Your task to perform on an android device: turn pop-ups off in chrome Image 0: 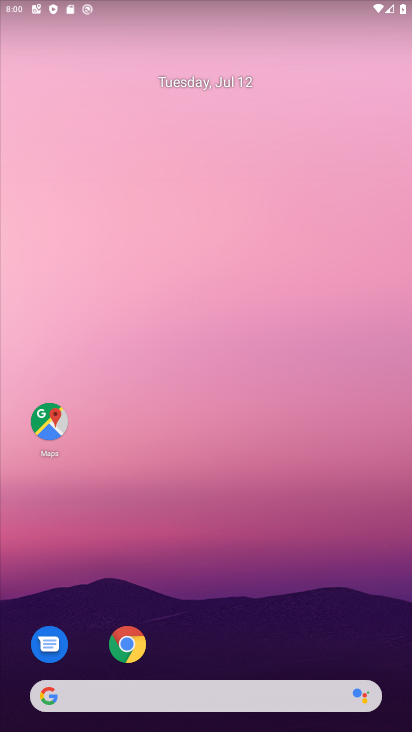
Step 0: drag from (188, 659) to (251, 150)
Your task to perform on an android device: turn pop-ups off in chrome Image 1: 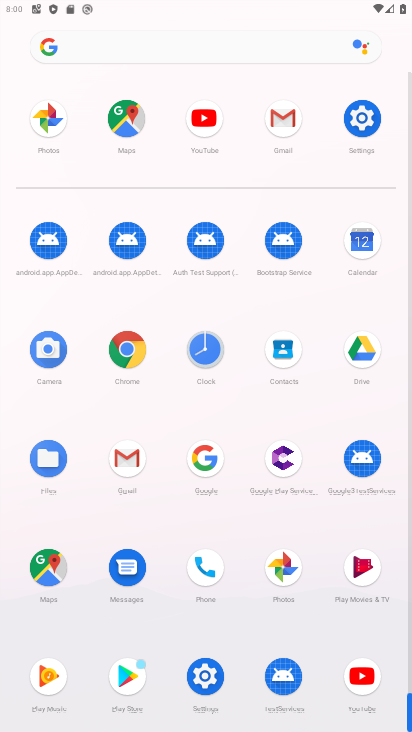
Step 1: click (128, 345)
Your task to perform on an android device: turn pop-ups off in chrome Image 2: 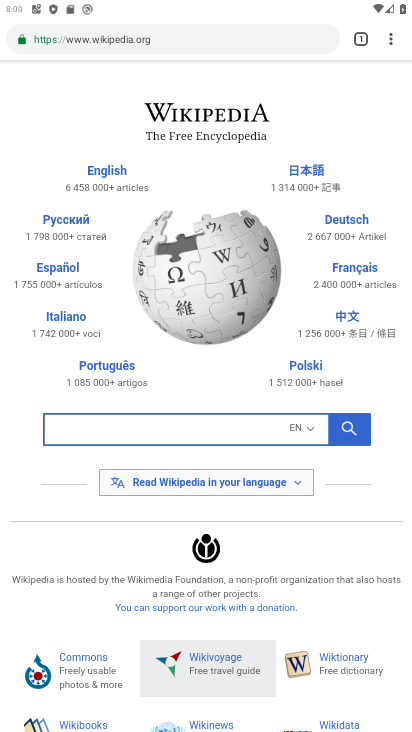
Step 2: drag from (233, 159) to (281, 713)
Your task to perform on an android device: turn pop-ups off in chrome Image 3: 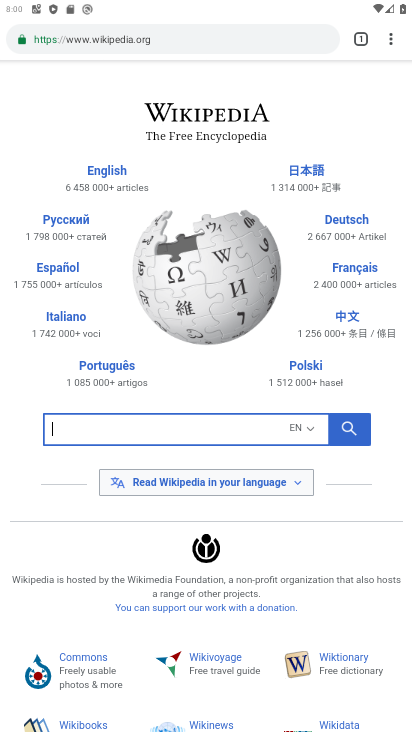
Step 3: drag from (285, 551) to (296, 189)
Your task to perform on an android device: turn pop-ups off in chrome Image 4: 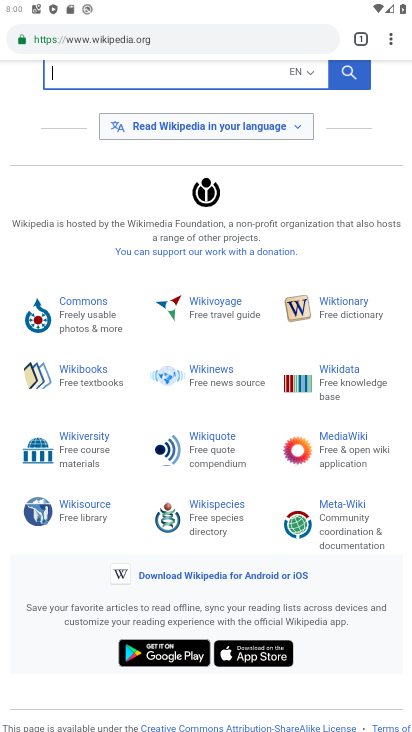
Step 4: drag from (281, 261) to (319, 726)
Your task to perform on an android device: turn pop-ups off in chrome Image 5: 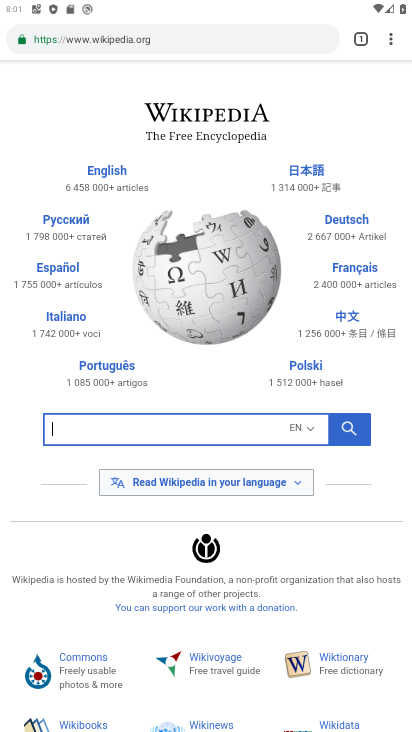
Step 5: drag from (273, 115) to (320, 517)
Your task to perform on an android device: turn pop-ups off in chrome Image 6: 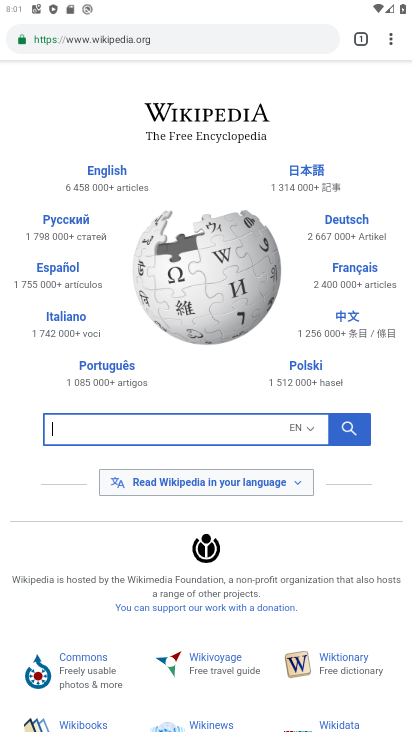
Step 6: click (386, 39)
Your task to perform on an android device: turn pop-ups off in chrome Image 7: 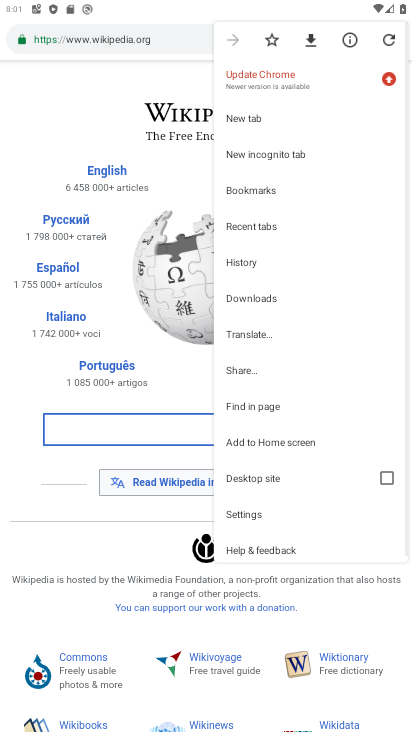
Step 7: drag from (282, 524) to (324, 130)
Your task to perform on an android device: turn pop-ups off in chrome Image 8: 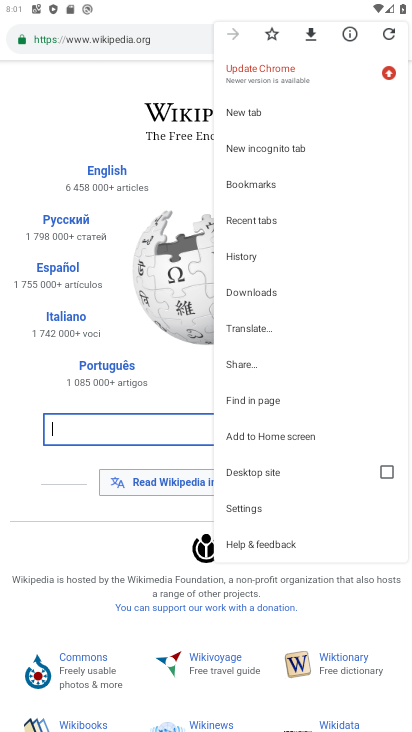
Step 8: click (259, 512)
Your task to perform on an android device: turn pop-ups off in chrome Image 9: 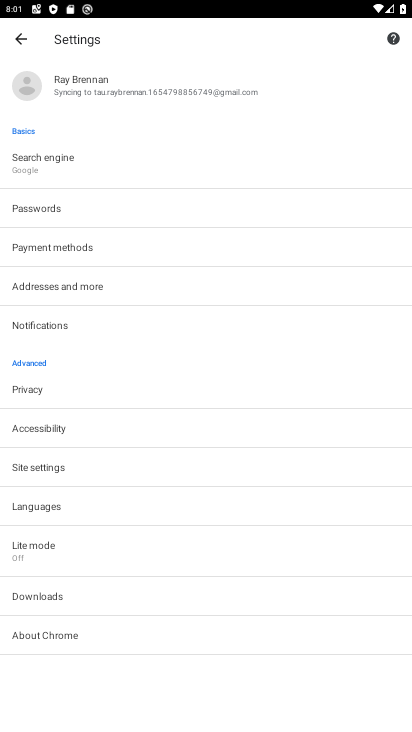
Step 9: drag from (143, 618) to (347, 138)
Your task to perform on an android device: turn pop-ups off in chrome Image 10: 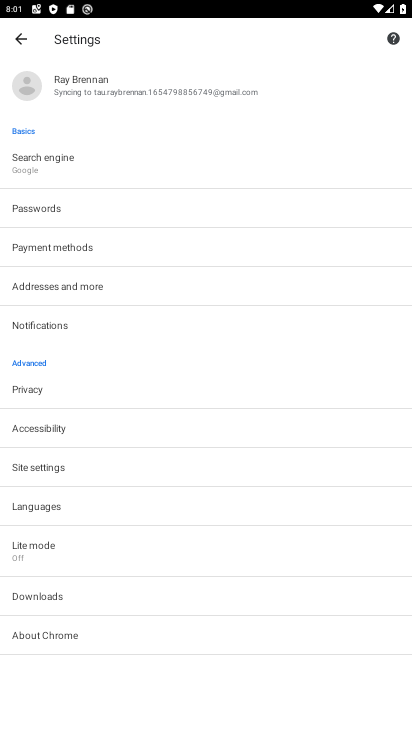
Step 10: drag from (163, 667) to (287, 232)
Your task to perform on an android device: turn pop-ups off in chrome Image 11: 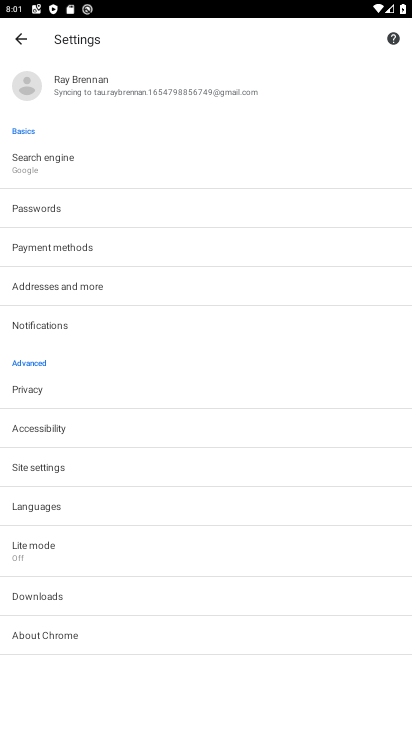
Step 11: click (122, 451)
Your task to perform on an android device: turn pop-ups off in chrome Image 12: 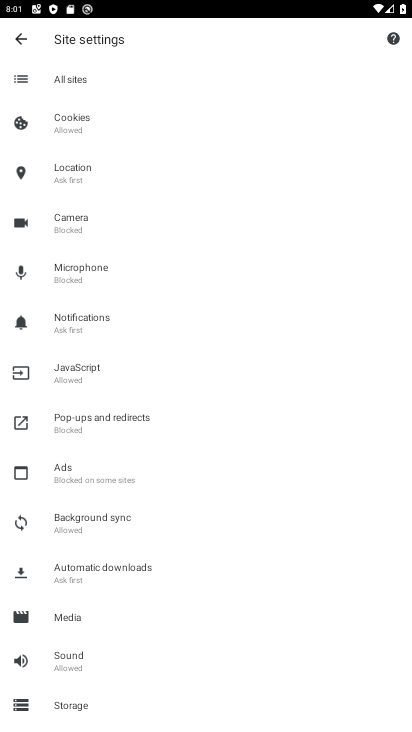
Step 12: click (138, 425)
Your task to perform on an android device: turn pop-ups off in chrome Image 13: 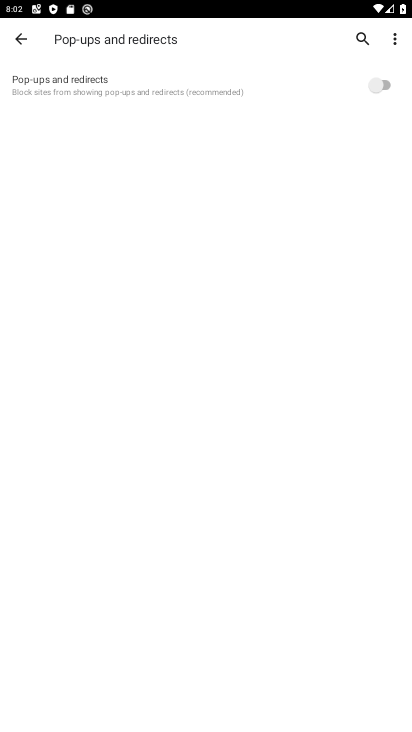
Step 13: task complete